Your task to perform on an android device: toggle airplane mode Image 0: 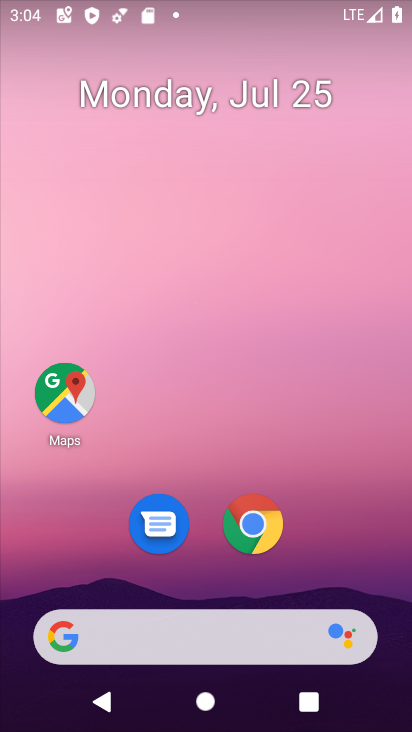
Step 0: drag from (322, 559) to (326, 1)
Your task to perform on an android device: toggle airplane mode Image 1: 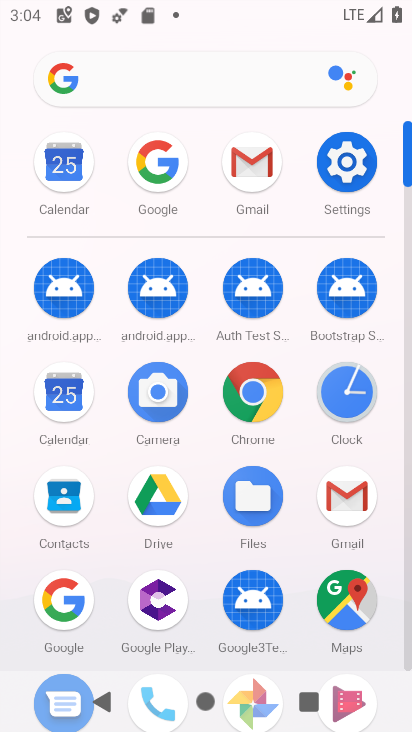
Step 1: click (358, 161)
Your task to perform on an android device: toggle airplane mode Image 2: 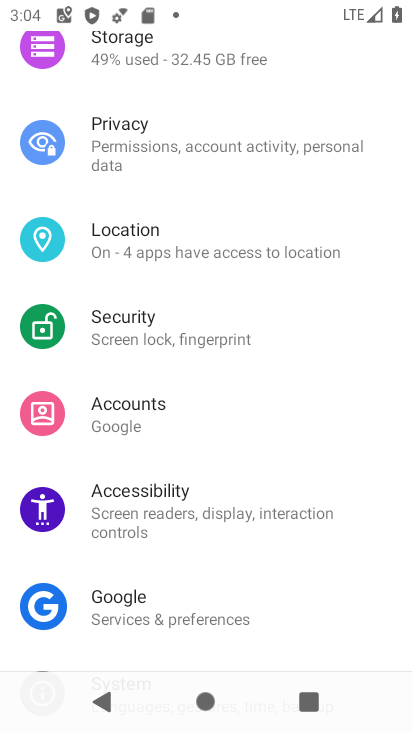
Step 2: drag from (224, 217) to (238, 657)
Your task to perform on an android device: toggle airplane mode Image 3: 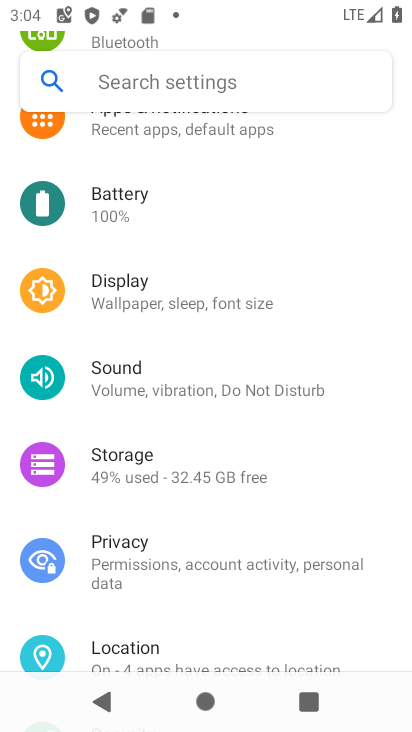
Step 3: drag from (207, 165) to (218, 600)
Your task to perform on an android device: toggle airplane mode Image 4: 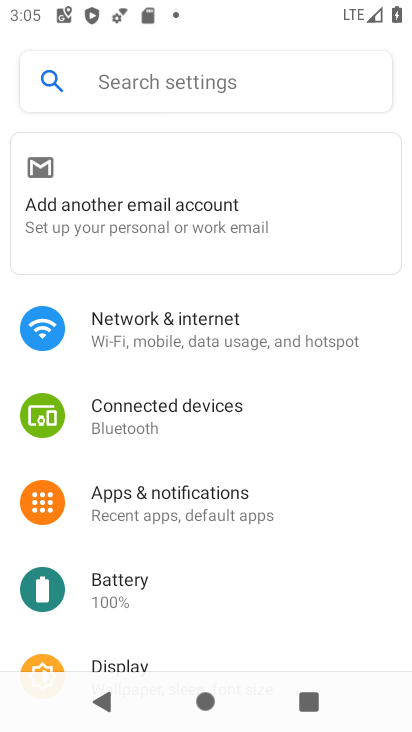
Step 4: click (224, 308)
Your task to perform on an android device: toggle airplane mode Image 5: 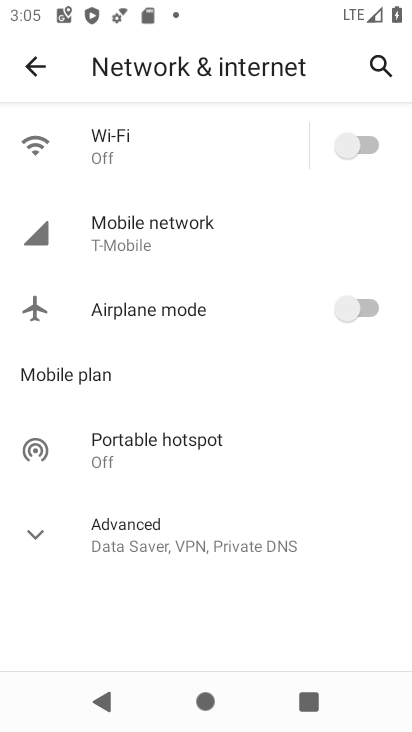
Step 5: click (367, 297)
Your task to perform on an android device: toggle airplane mode Image 6: 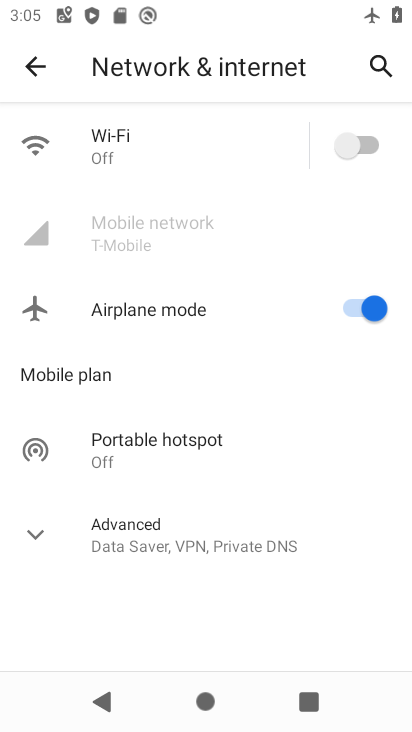
Step 6: task complete